Your task to perform on an android device: Do I have any events this weekend? Image 0: 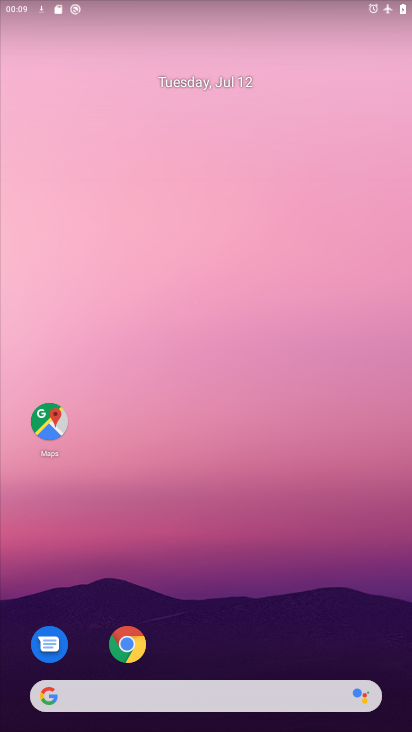
Step 0: drag from (267, 655) to (267, 302)
Your task to perform on an android device: Do I have any events this weekend? Image 1: 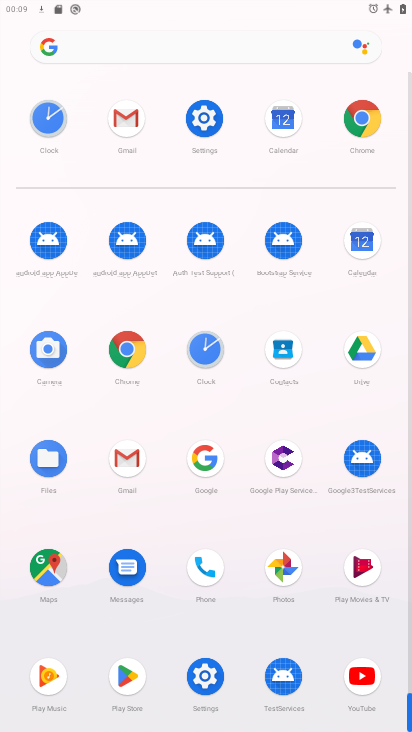
Step 1: click (371, 231)
Your task to perform on an android device: Do I have any events this weekend? Image 2: 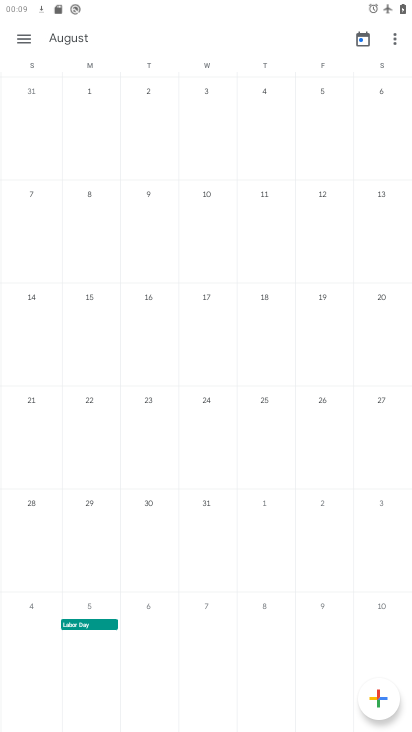
Step 2: drag from (3, 193) to (381, 255)
Your task to perform on an android device: Do I have any events this weekend? Image 3: 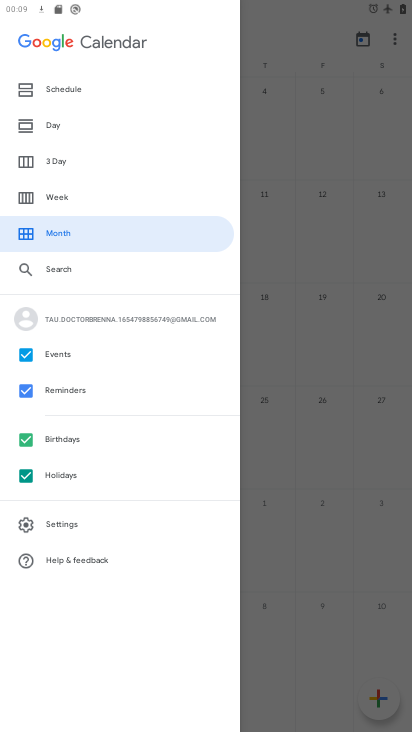
Step 3: click (309, 234)
Your task to perform on an android device: Do I have any events this weekend? Image 4: 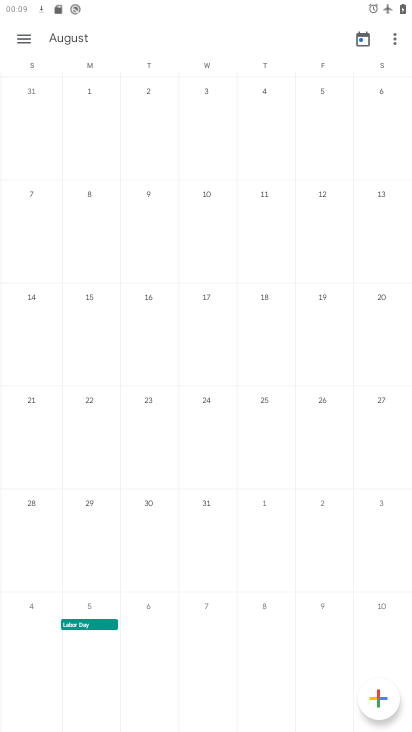
Step 4: task complete